Your task to perform on an android device: turn notification dots off Image 0: 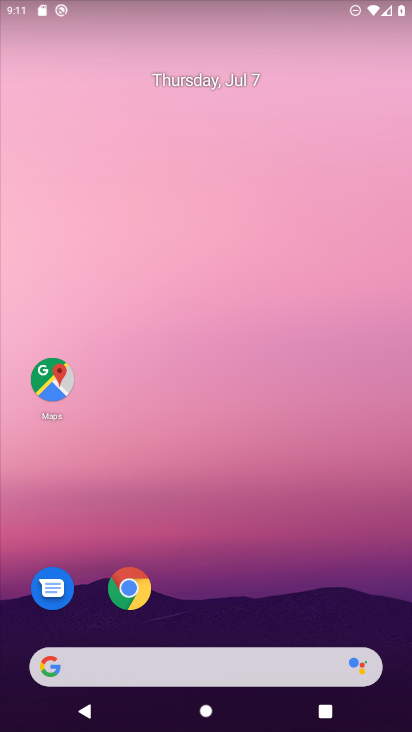
Step 0: drag from (258, 9) to (246, 472)
Your task to perform on an android device: turn notification dots off Image 1: 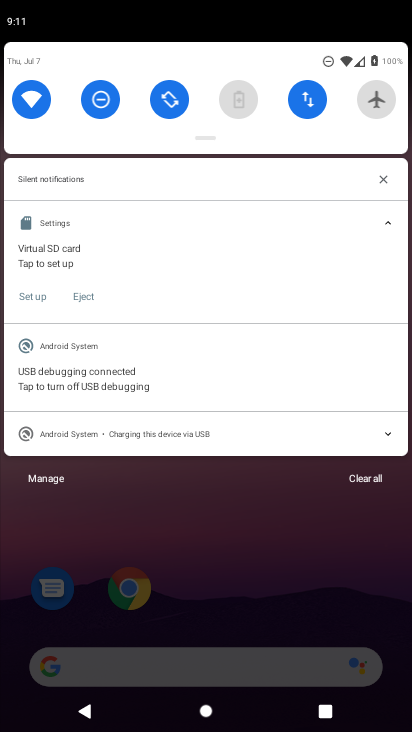
Step 1: drag from (216, 56) to (175, 461)
Your task to perform on an android device: turn notification dots off Image 2: 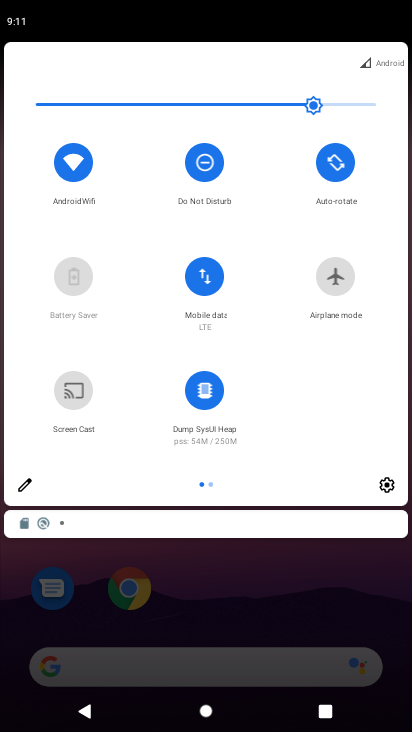
Step 2: click (387, 479)
Your task to perform on an android device: turn notification dots off Image 3: 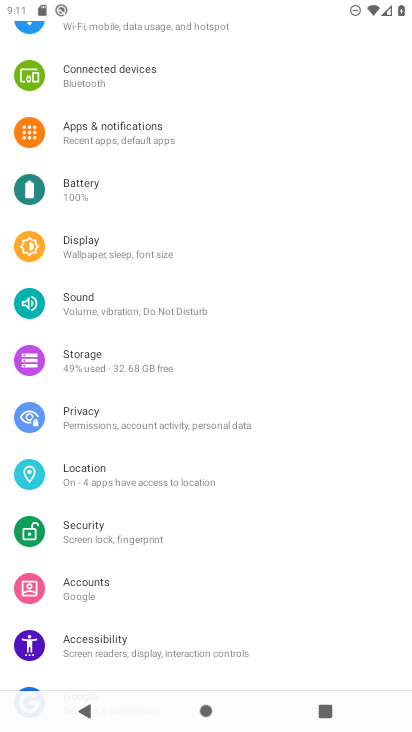
Step 3: click (148, 118)
Your task to perform on an android device: turn notification dots off Image 4: 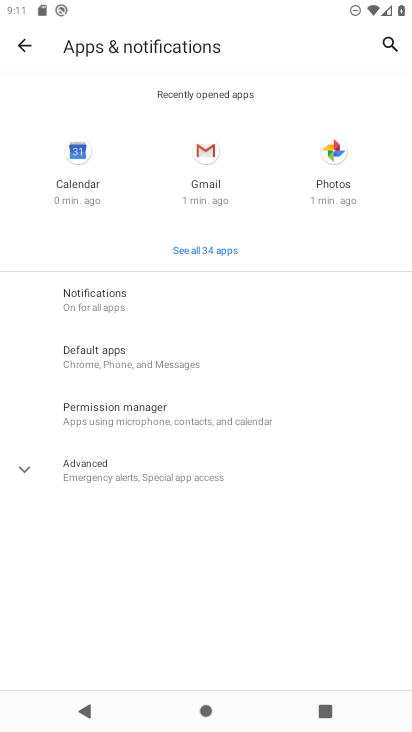
Step 4: click (106, 486)
Your task to perform on an android device: turn notification dots off Image 5: 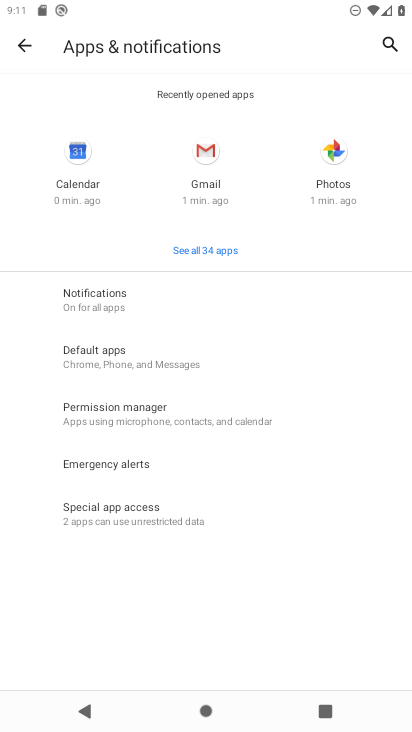
Step 5: click (113, 304)
Your task to perform on an android device: turn notification dots off Image 6: 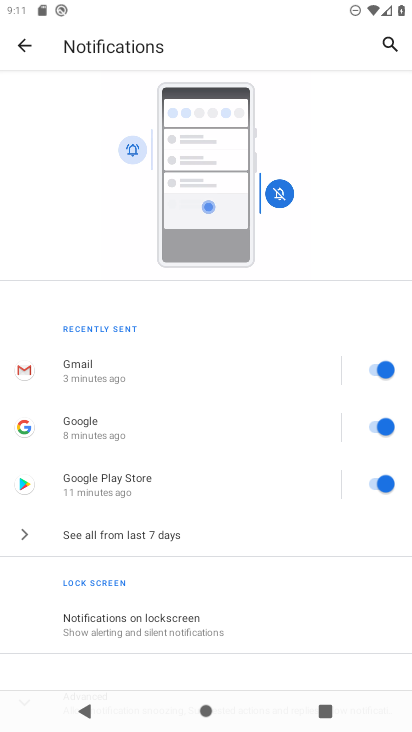
Step 6: drag from (152, 649) to (373, 121)
Your task to perform on an android device: turn notification dots off Image 7: 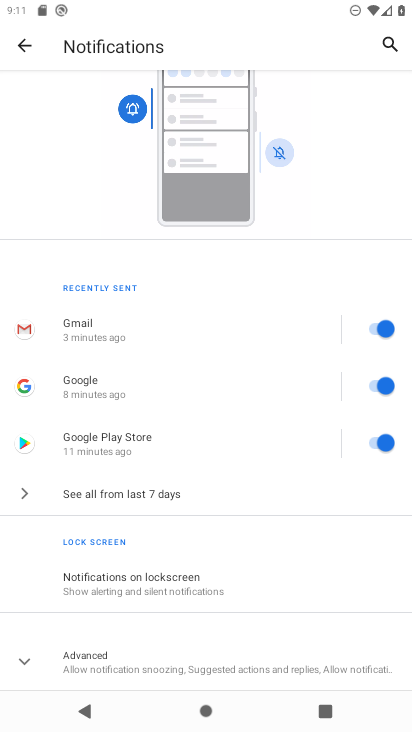
Step 7: click (84, 657)
Your task to perform on an android device: turn notification dots off Image 8: 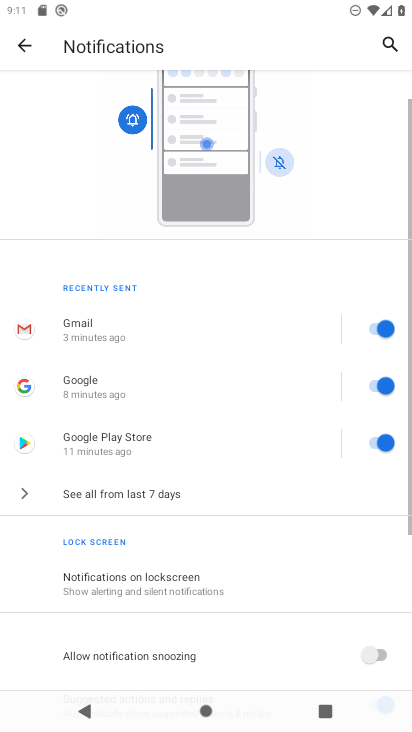
Step 8: drag from (84, 657) to (275, 110)
Your task to perform on an android device: turn notification dots off Image 9: 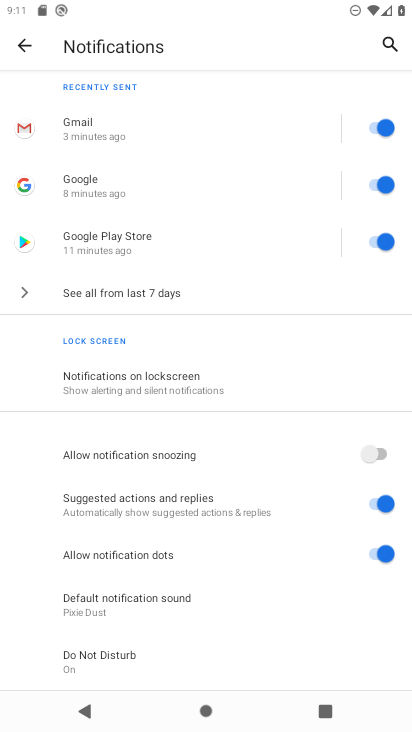
Step 9: click (380, 547)
Your task to perform on an android device: turn notification dots off Image 10: 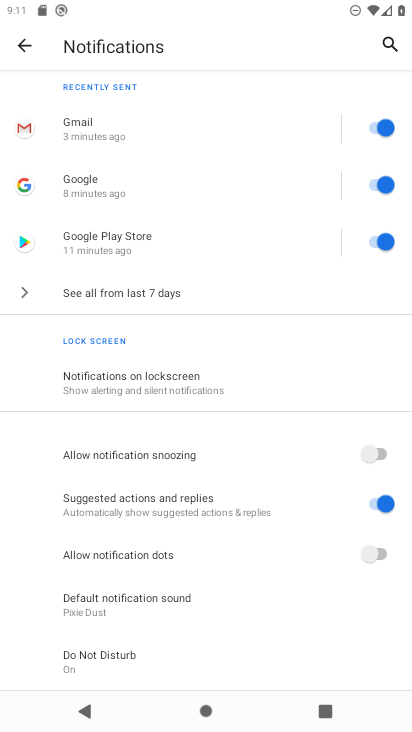
Step 10: task complete